Your task to perform on an android device: turn off notifications in google photos Image 0: 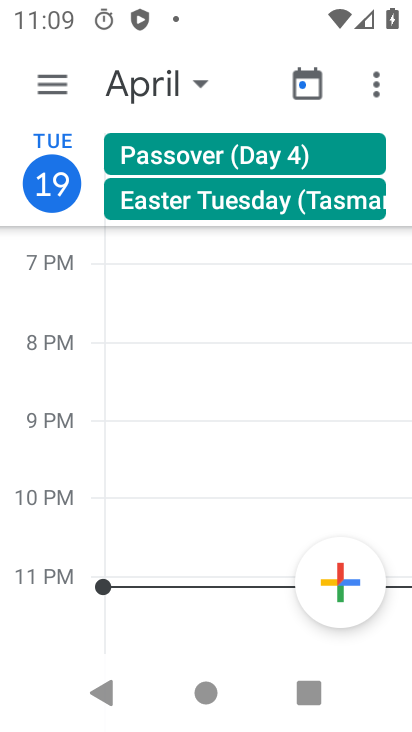
Step 0: press back button
Your task to perform on an android device: turn off notifications in google photos Image 1: 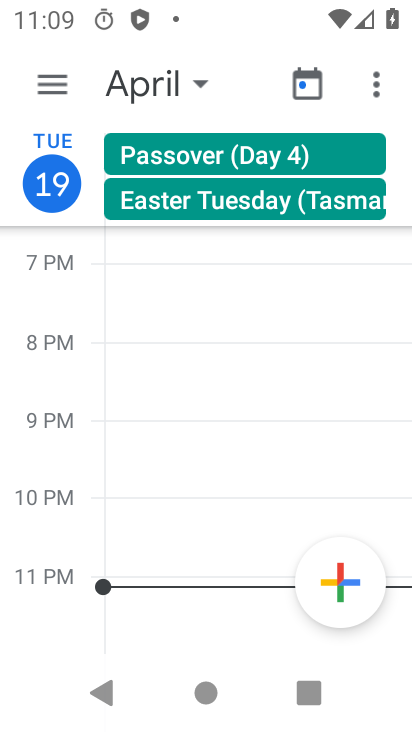
Step 1: press back button
Your task to perform on an android device: turn off notifications in google photos Image 2: 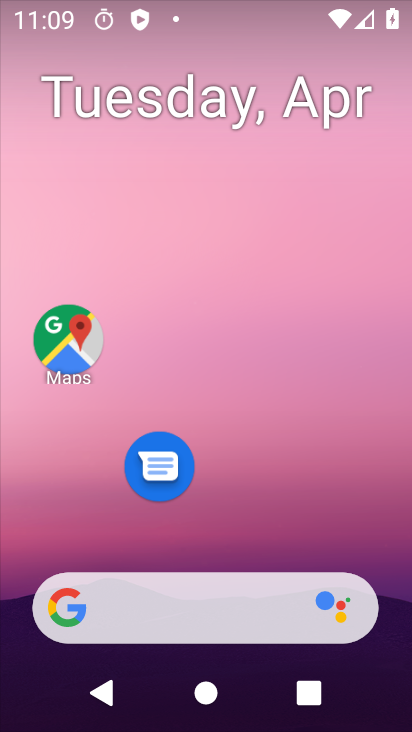
Step 2: drag from (323, 529) to (265, 159)
Your task to perform on an android device: turn off notifications in google photos Image 3: 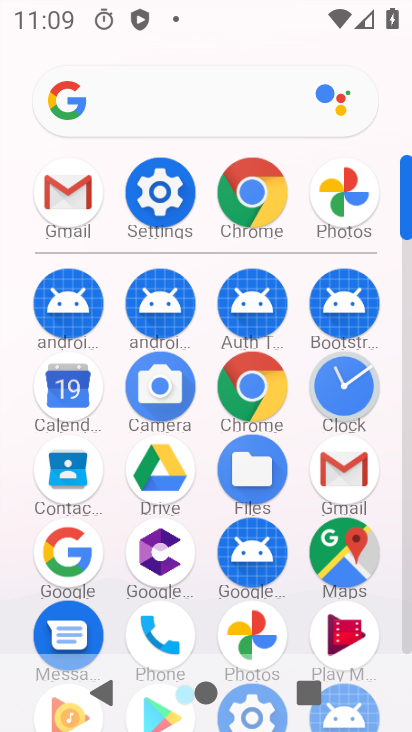
Step 3: click (256, 623)
Your task to perform on an android device: turn off notifications in google photos Image 4: 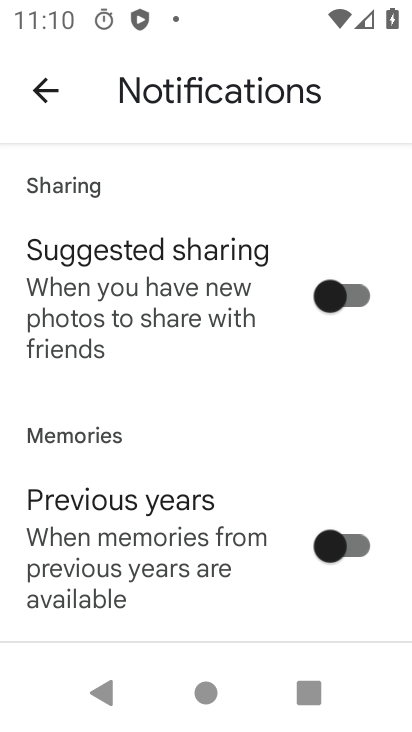
Step 4: task complete